Your task to perform on an android device: Open display settings Image 0: 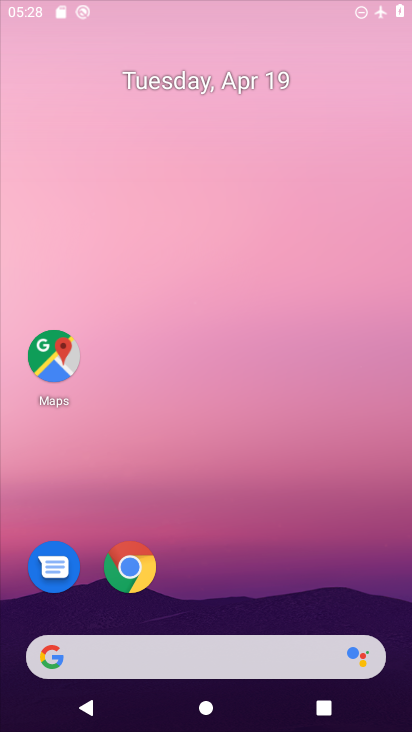
Step 0: drag from (274, 543) to (293, 40)
Your task to perform on an android device: Open display settings Image 1: 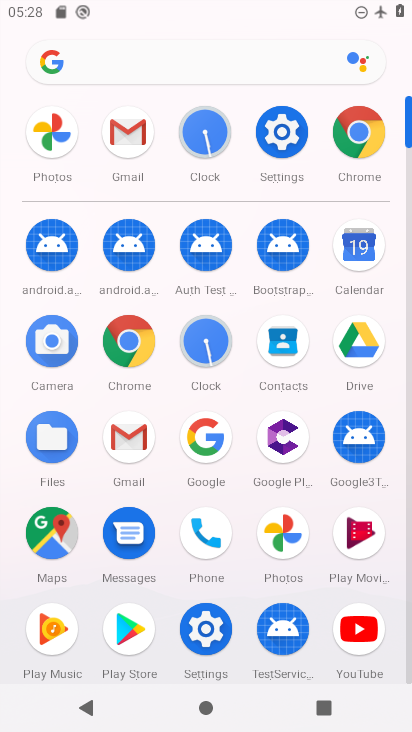
Step 1: click (203, 633)
Your task to perform on an android device: Open display settings Image 2: 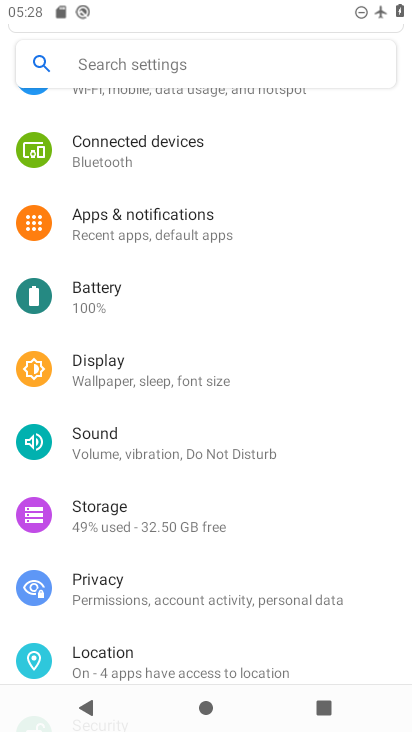
Step 2: click (166, 374)
Your task to perform on an android device: Open display settings Image 3: 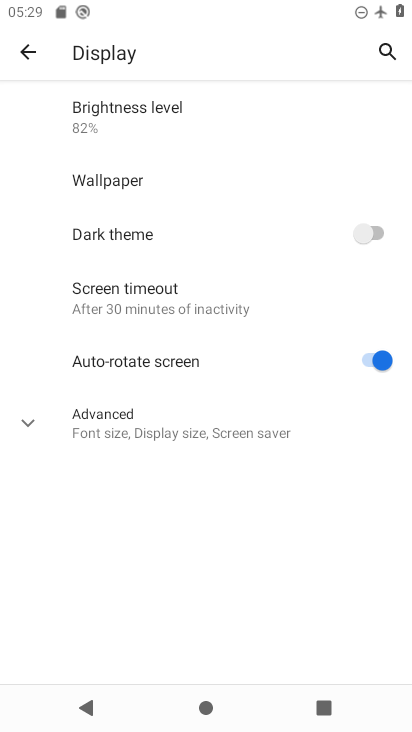
Step 3: task complete